Your task to perform on an android device: Open the web browser Image 0: 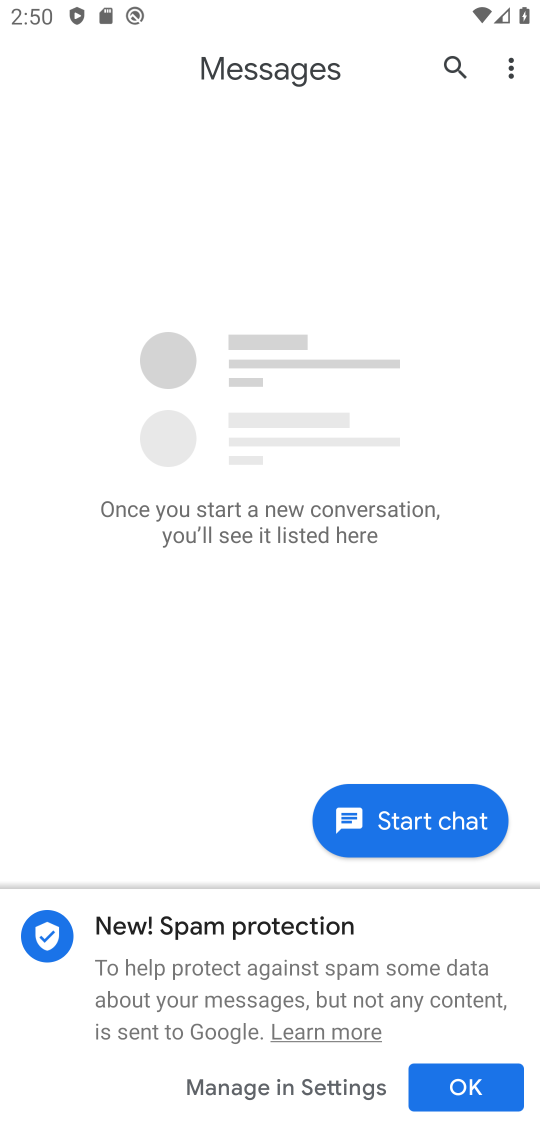
Step 0: press home button
Your task to perform on an android device: Open the web browser Image 1: 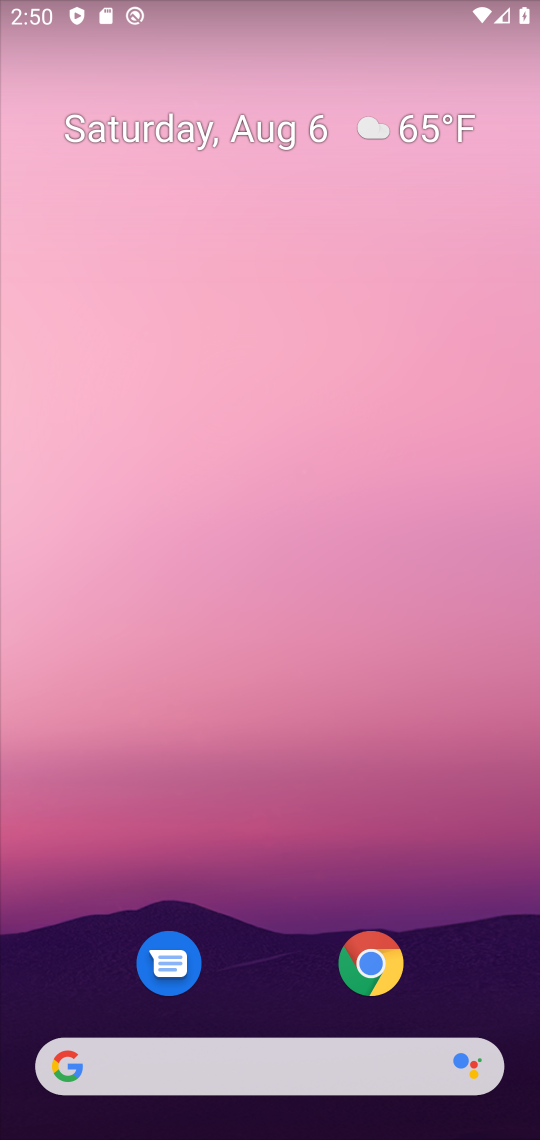
Step 1: click (371, 959)
Your task to perform on an android device: Open the web browser Image 2: 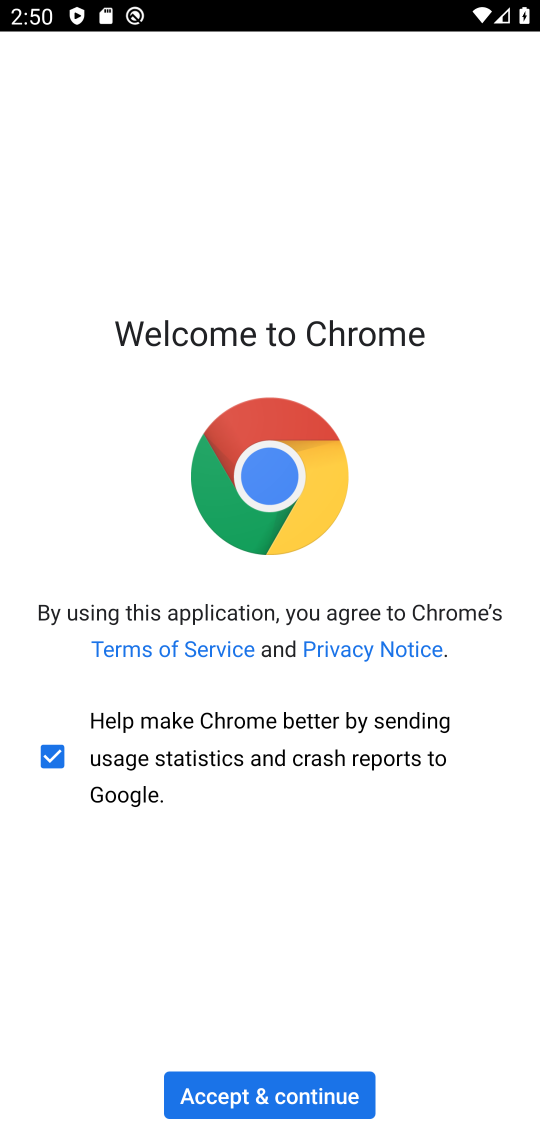
Step 2: click (316, 1089)
Your task to perform on an android device: Open the web browser Image 3: 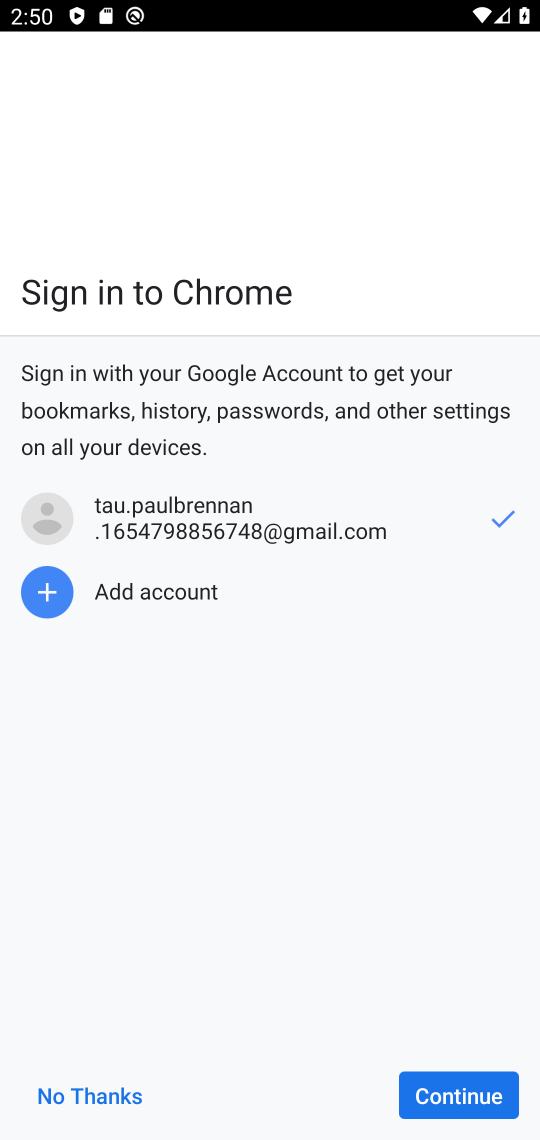
Step 3: click (497, 1085)
Your task to perform on an android device: Open the web browser Image 4: 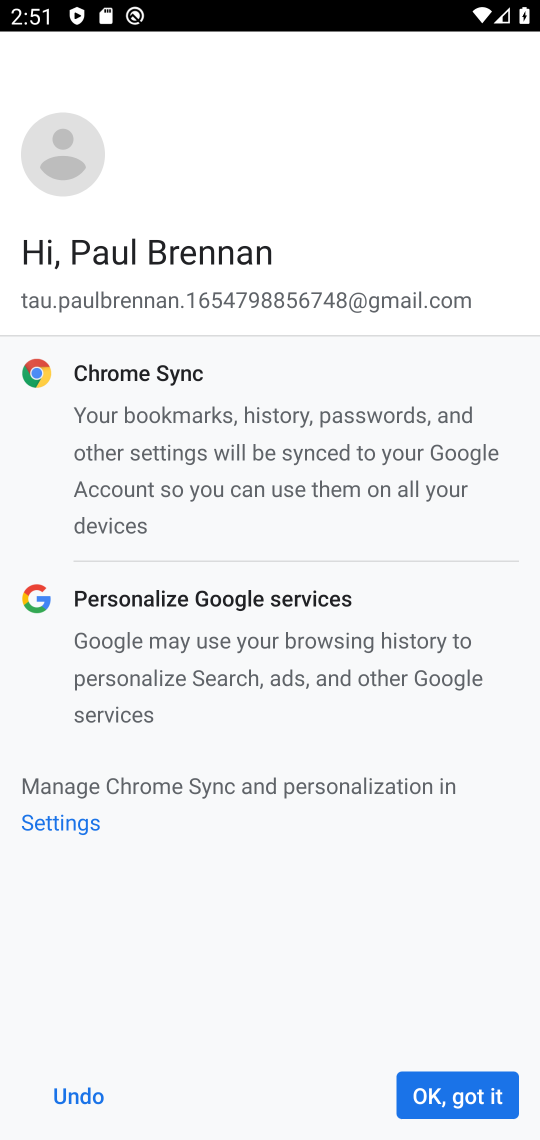
Step 4: click (478, 1092)
Your task to perform on an android device: Open the web browser Image 5: 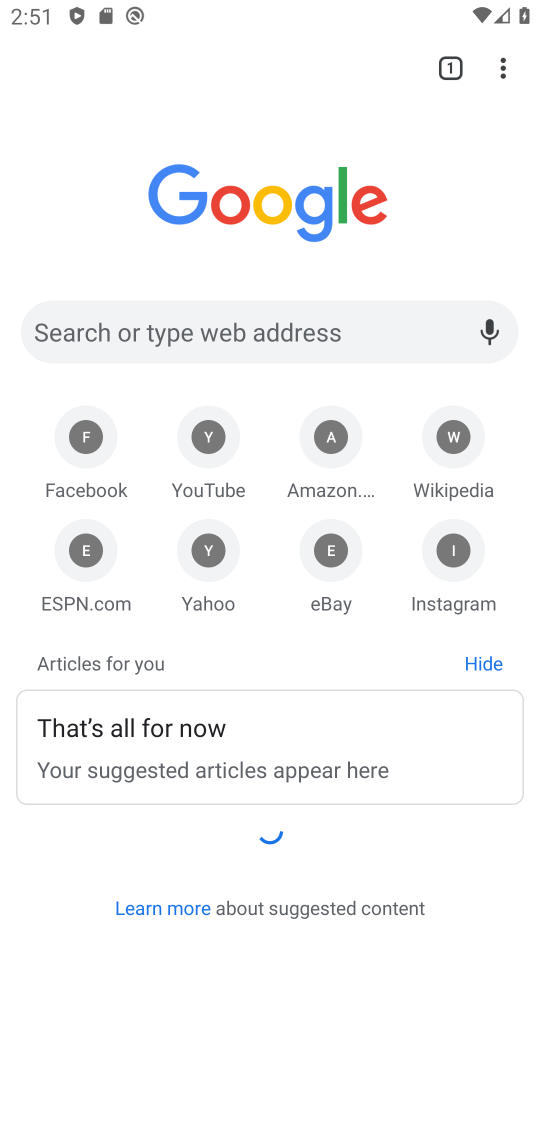
Step 5: task complete